Your task to perform on an android device: add a label to a message in the gmail app Image 0: 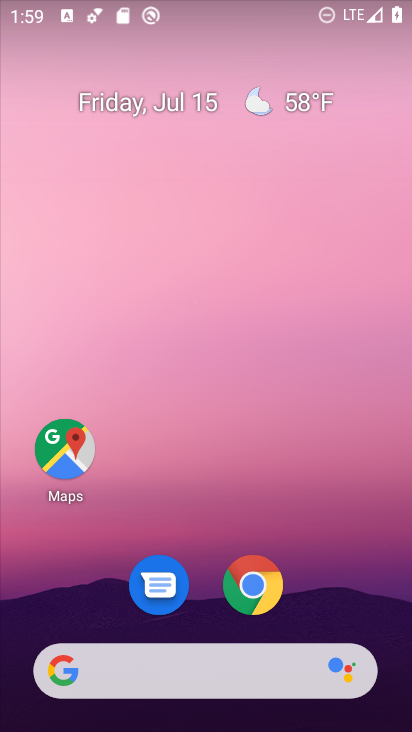
Step 0: drag from (211, 491) to (272, 0)
Your task to perform on an android device: add a label to a message in the gmail app Image 1: 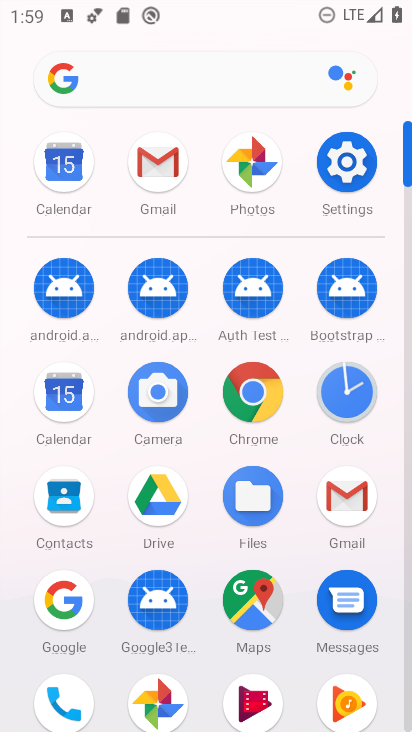
Step 1: click (159, 165)
Your task to perform on an android device: add a label to a message in the gmail app Image 2: 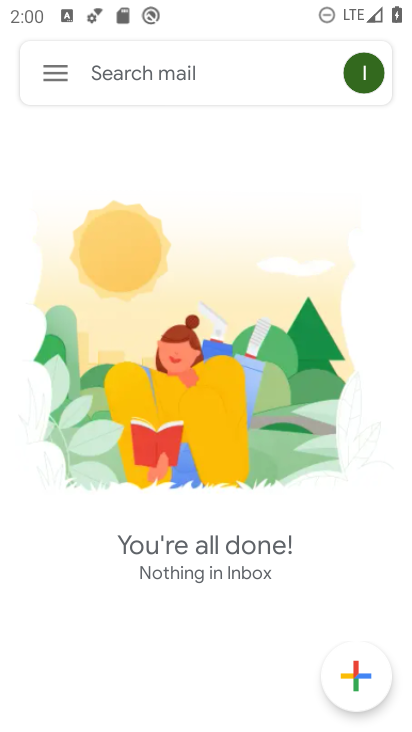
Step 2: click (58, 74)
Your task to perform on an android device: add a label to a message in the gmail app Image 3: 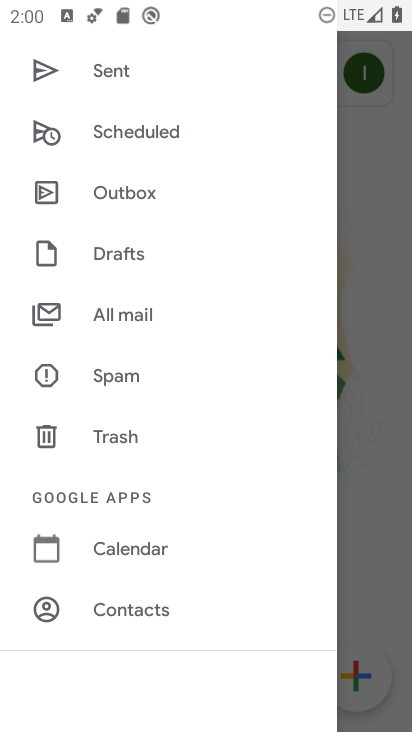
Step 3: click (125, 311)
Your task to perform on an android device: add a label to a message in the gmail app Image 4: 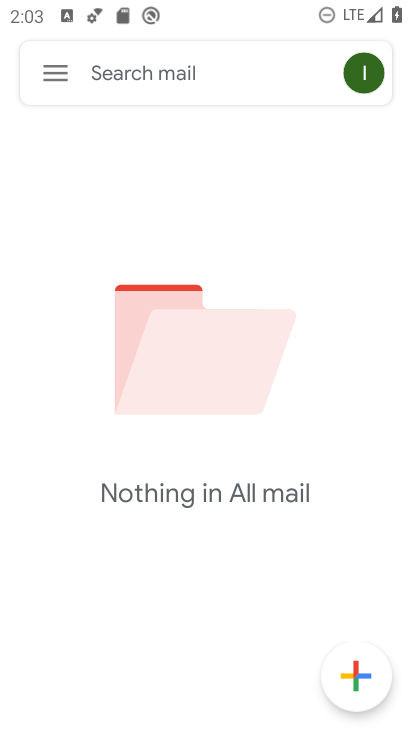
Step 4: task complete